Your task to perform on an android device: open a bookmark in the chrome app Image 0: 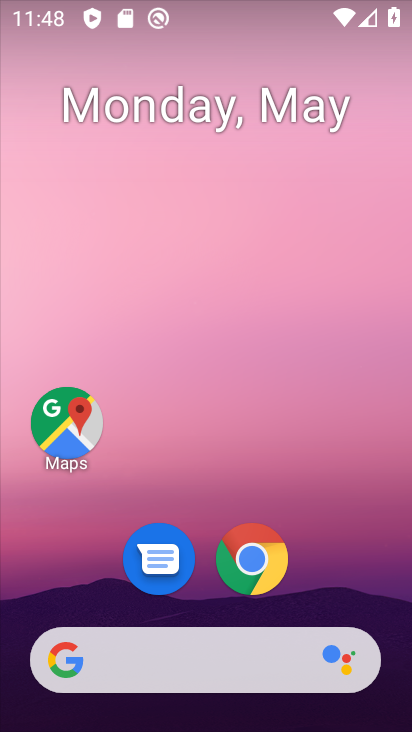
Step 0: click (252, 553)
Your task to perform on an android device: open a bookmark in the chrome app Image 1: 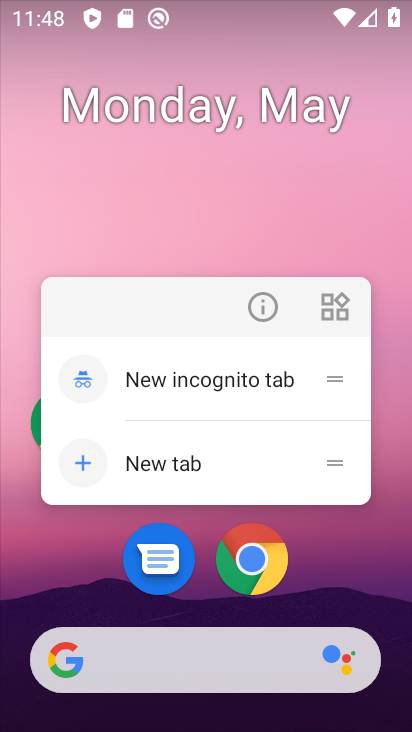
Step 1: click (253, 561)
Your task to perform on an android device: open a bookmark in the chrome app Image 2: 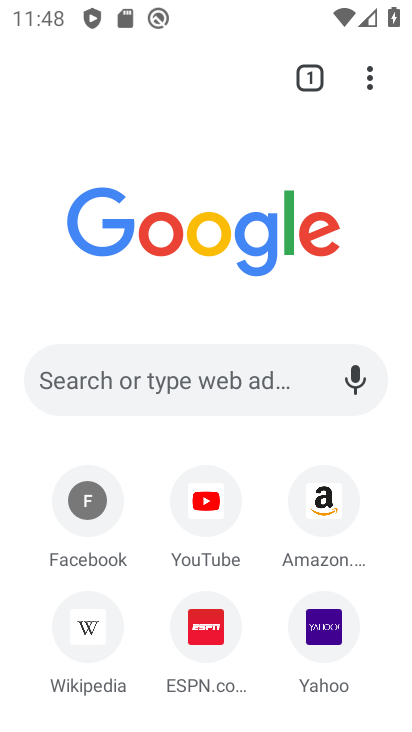
Step 2: click (378, 84)
Your task to perform on an android device: open a bookmark in the chrome app Image 3: 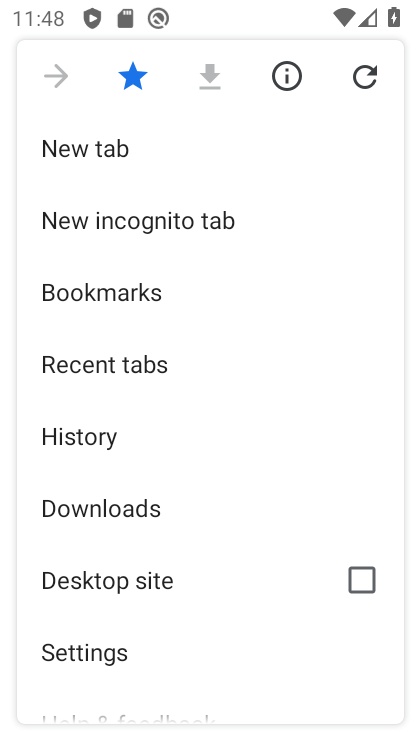
Step 3: click (121, 298)
Your task to perform on an android device: open a bookmark in the chrome app Image 4: 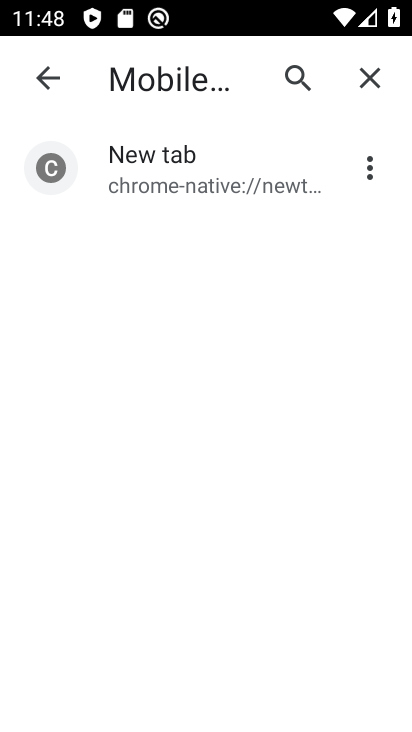
Step 4: click (215, 188)
Your task to perform on an android device: open a bookmark in the chrome app Image 5: 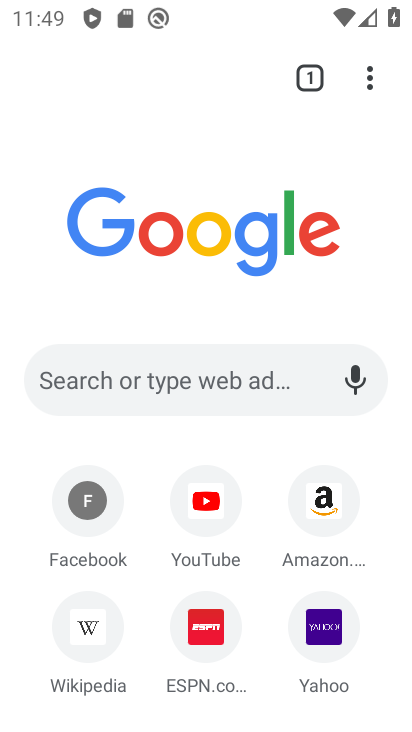
Step 5: task complete